Your task to perform on an android device: Go to internet settings Image 0: 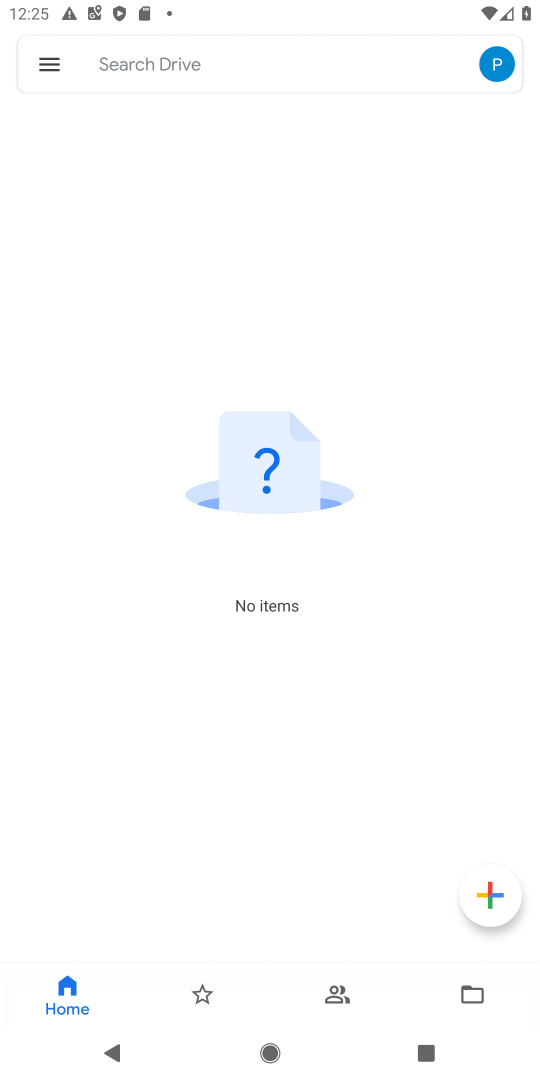
Step 0: press home button
Your task to perform on an android device: Go to internet settings Image 1: 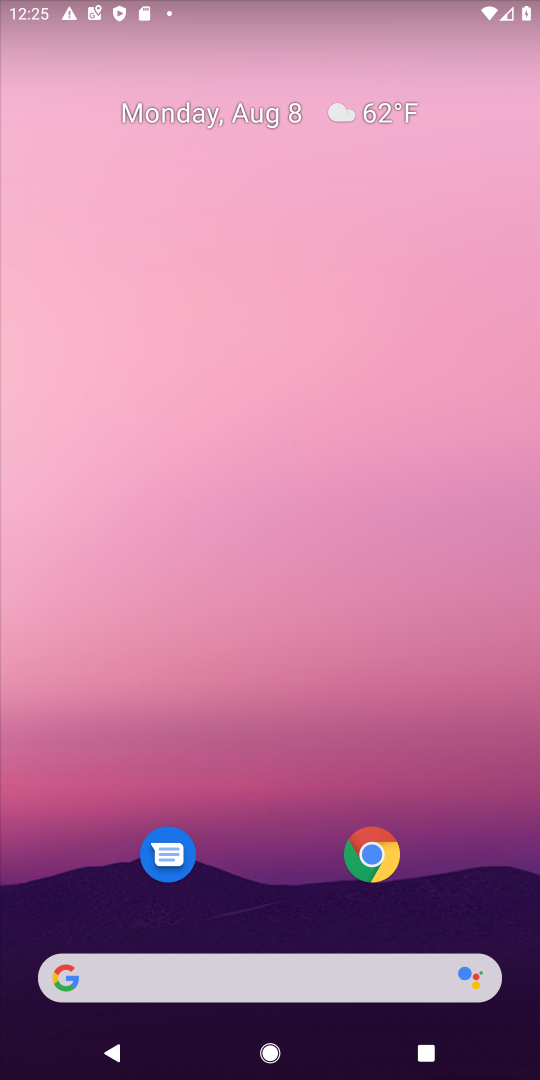
Step 1: drag from (306, 804) to (270, 26)
Your task to perform on an android device: Go to internet settings Image 2: 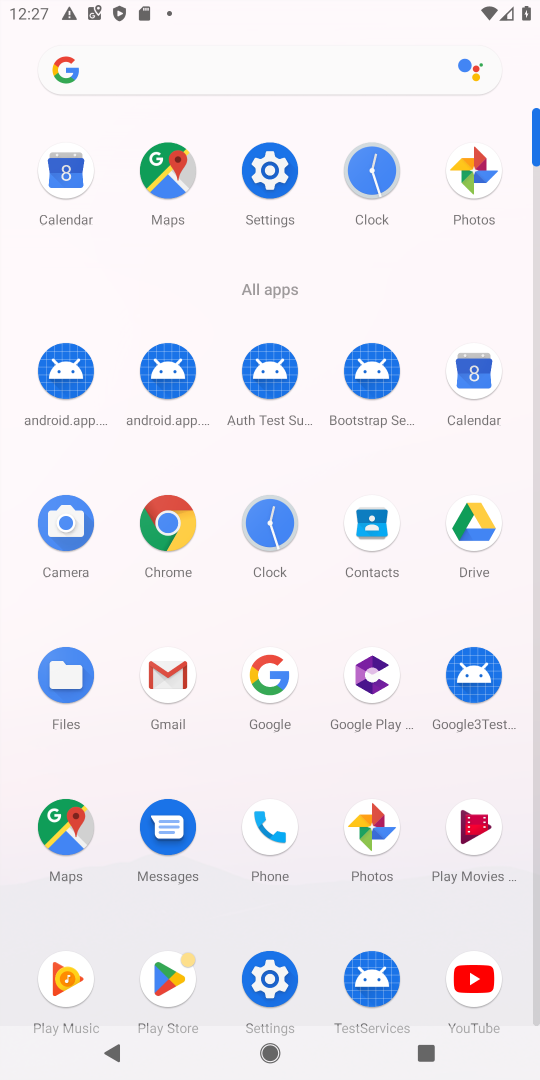
Step 2: click (287, 167)
Your task to perform on an android device: Go to internet settings Image 3: 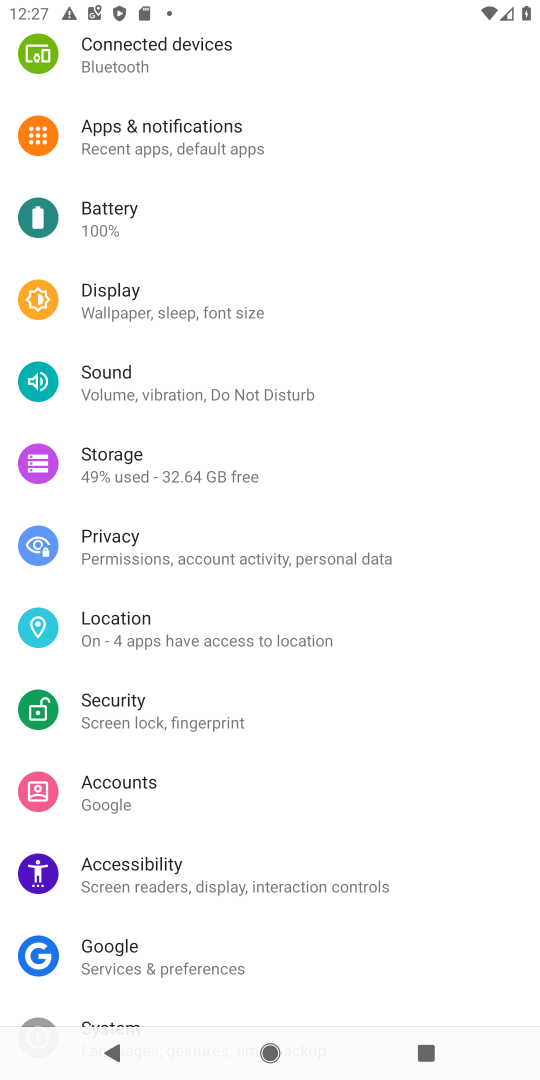
Step 3: drag from (374, 235) to (459, 866)
Your task to perform on an android device: Go to internet settings Image 4: 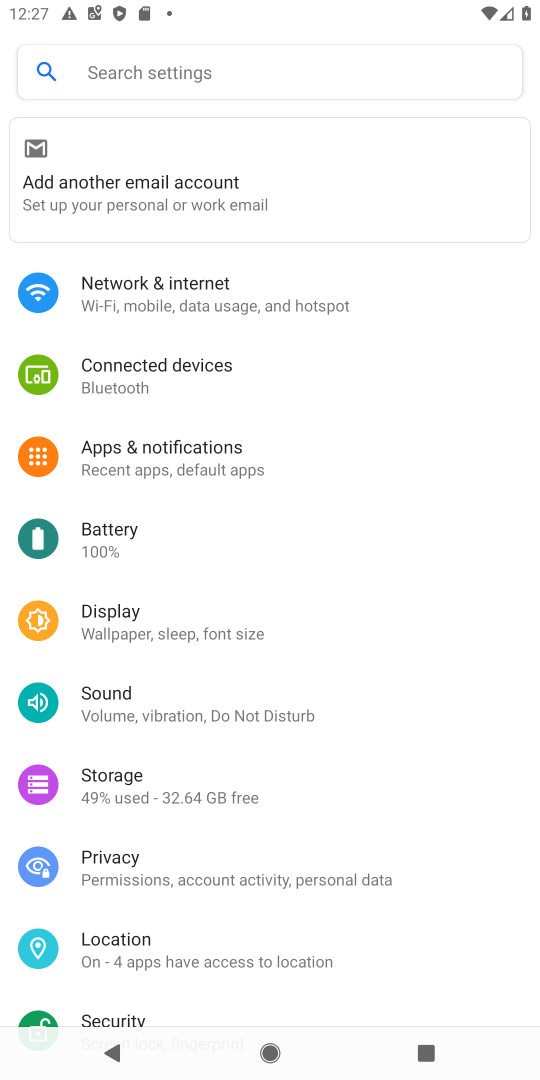
Step 4: click (171, 296)
Your task to perform on an android device: Go to internet settings Image 5: 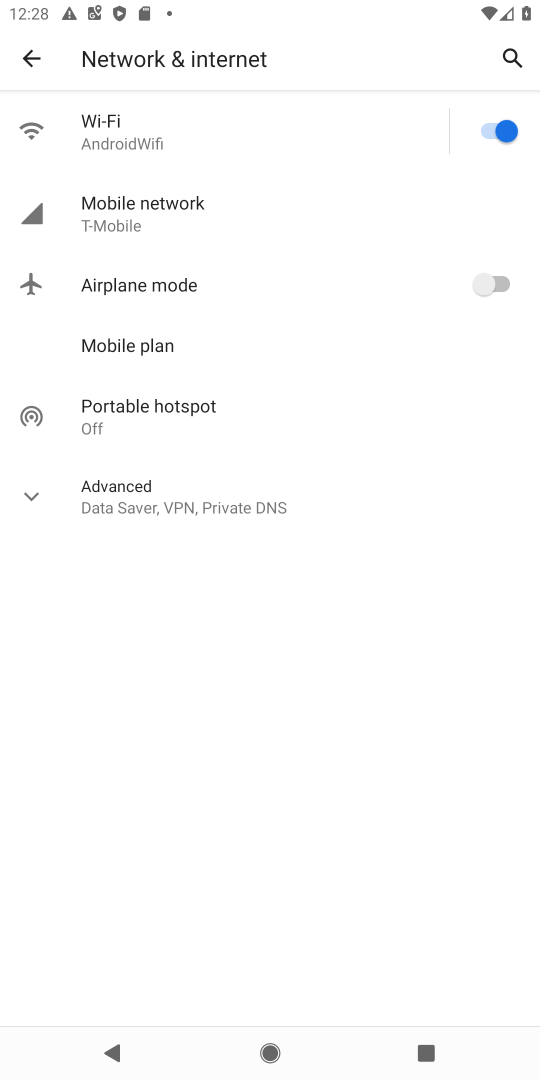
Step 5: task complete